Your task to perform on an android device: turn on sleep mode Image 0: 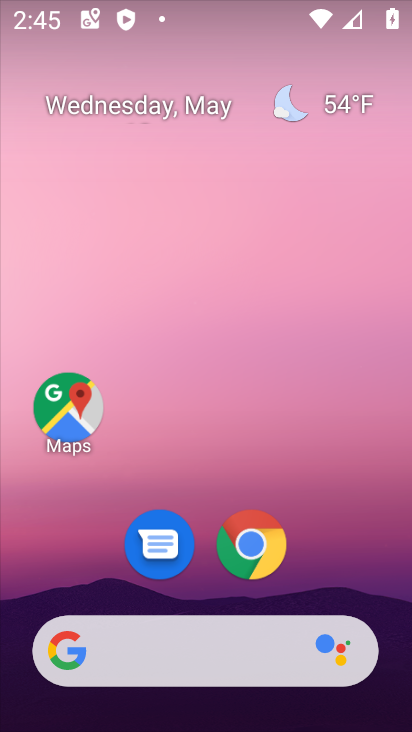
Step 0: drag from (354, 564) to (347, 89)
Your task to perform on an android device: turn on sleep mode Image 1: 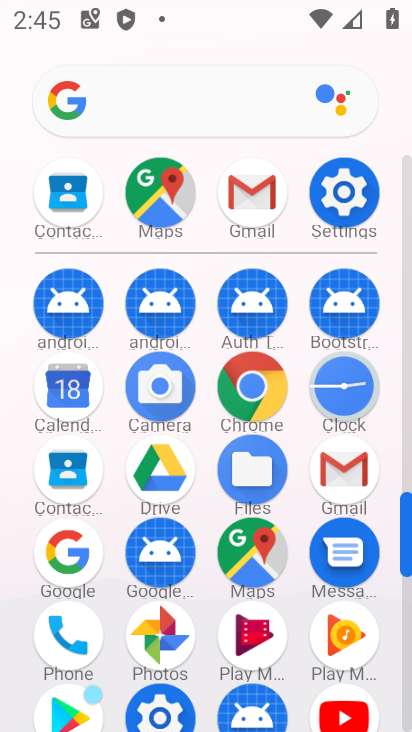
Step 1: click (325, 212)
Your task to perform on an android device: turn on sleep mode Image 2: 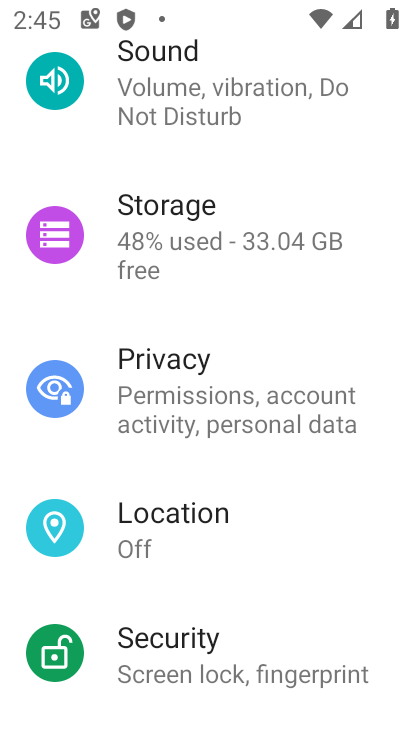
Step 2: drag from (208, 130) to (207, 437)
Your task to perform on an android device: turn on sleep mode Image 3: 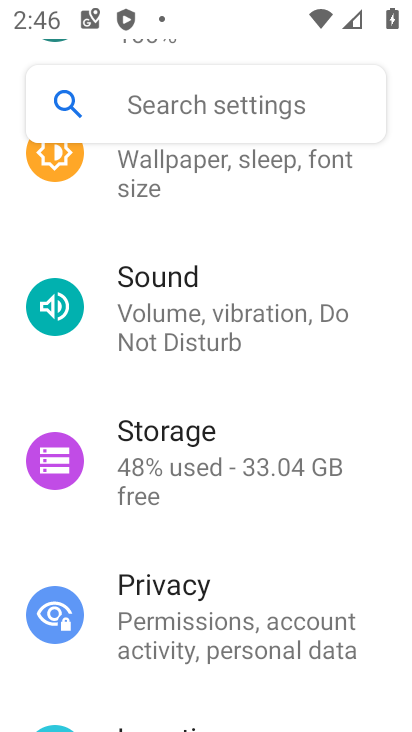
Step 3: drag from (234, 238) to (227, 411)
Your task to perform on an android device: turn on sleep mode Image 4: 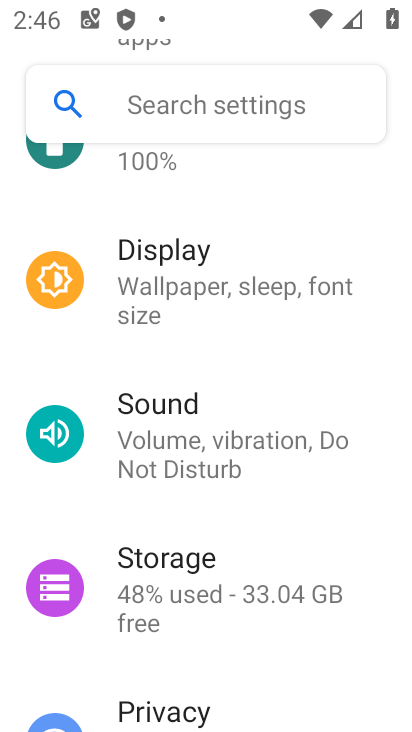
Step 4: click (226, 256)
Your task to perform on an android device: turn on sleep mode Image 5: 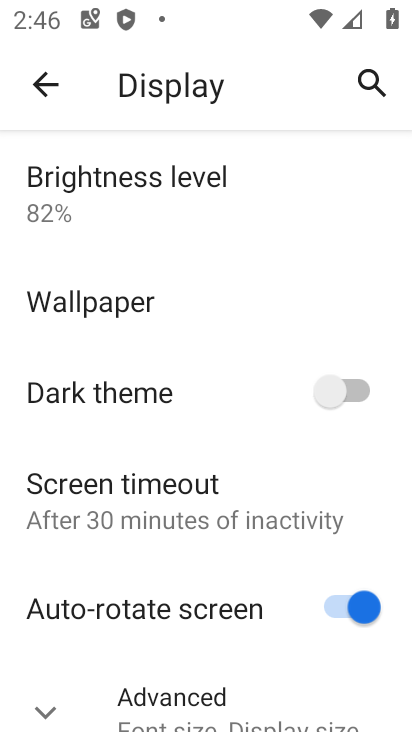
Step 5: drag from (123, 681) to (171, 474)
Your task to perform on an android device: turn on sleep mode Image 6: 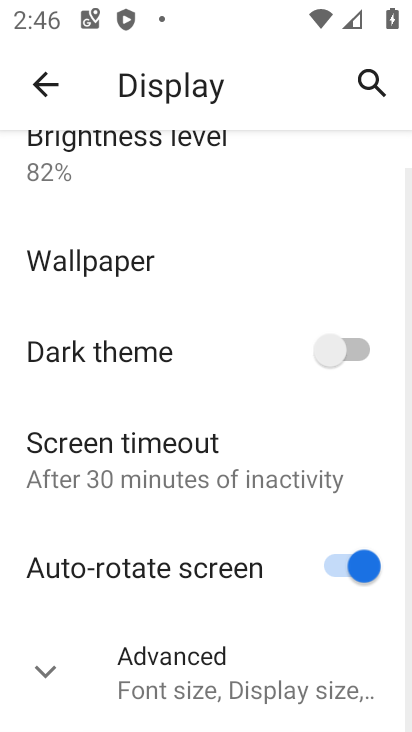
Step 6: click (171, 474)
Your task to perform on an android device: turn on sleep mode Image 7: 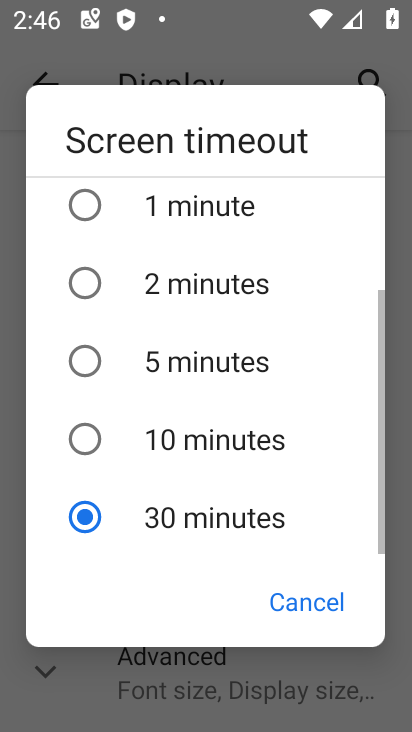
Step 7: drag from (166, 220) to (186, 524)
Your task to perform on an android device: turn on sleep mode Image 8: 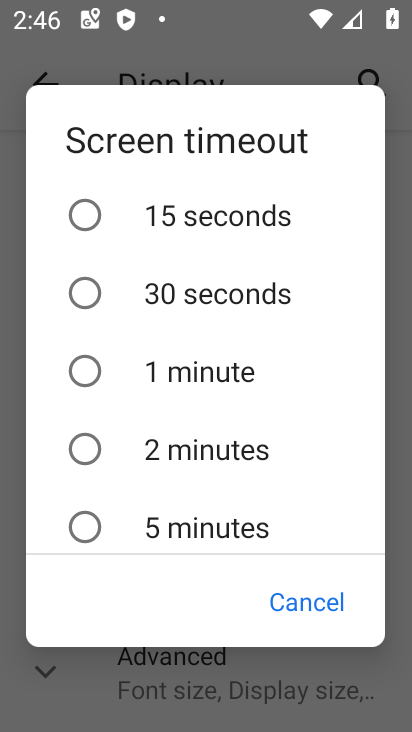
Step 8: click (234, 208)
Your task to perform on an android device: turn on sleep mode Image 9: 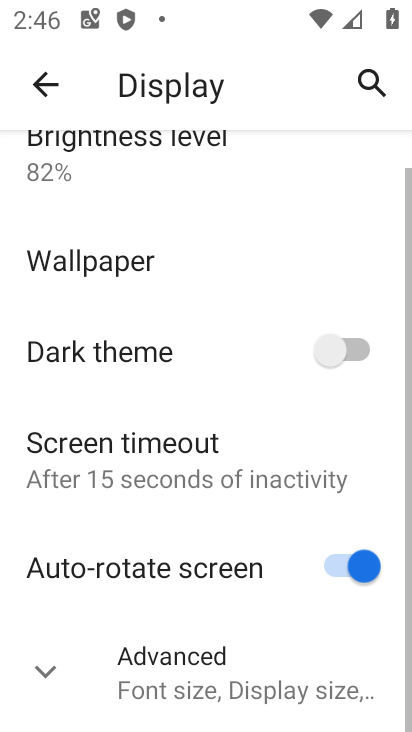
Step 9: task complete